Your task to perform on an android device: clear all cookies in the chrome app Image 0: 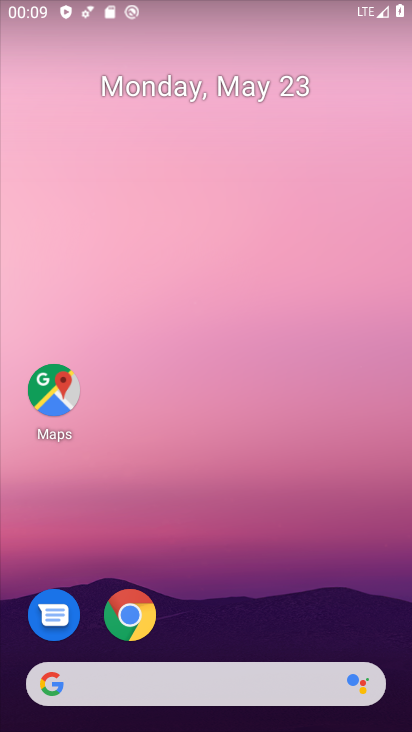
Step 0: click (118, 609)
Your task to perform on an android device: clear all cookies in the chrome app Image 1: 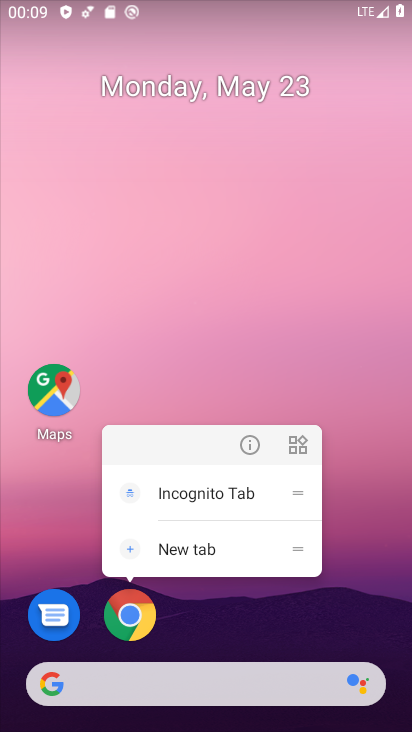
Step 1: click (127, 612)
Your task to perform on an android device: clear all cookies in the chrome app Image 2: 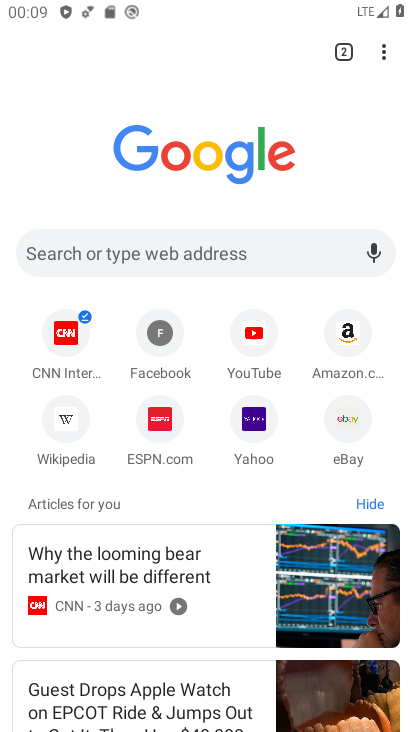
Step 2: drag from (385, 47) to (179, 303)
Your task to perform on an android device: clear all cookies in the chrome app Image 3: 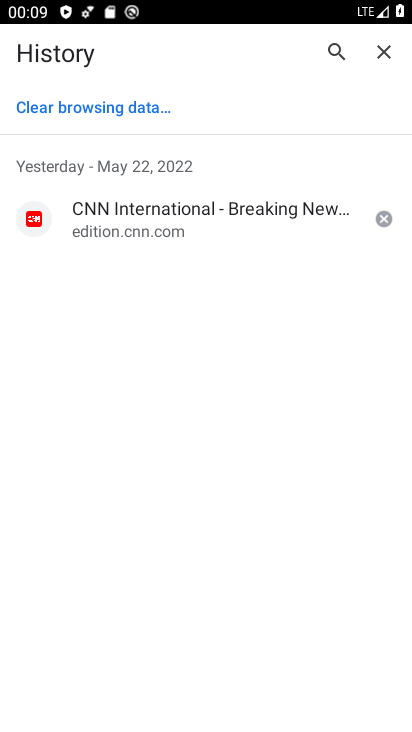
Step 3: click (88, 100)
Your task to perform on an android device: clear all cookies in the chrome app Image 4: 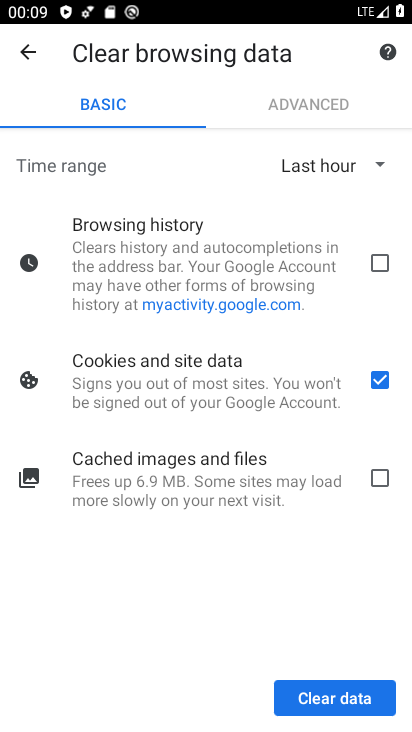
Step 4: click (331, 704)
Your task to perform on an android device: clear all cookies in the chrome app Image 5: 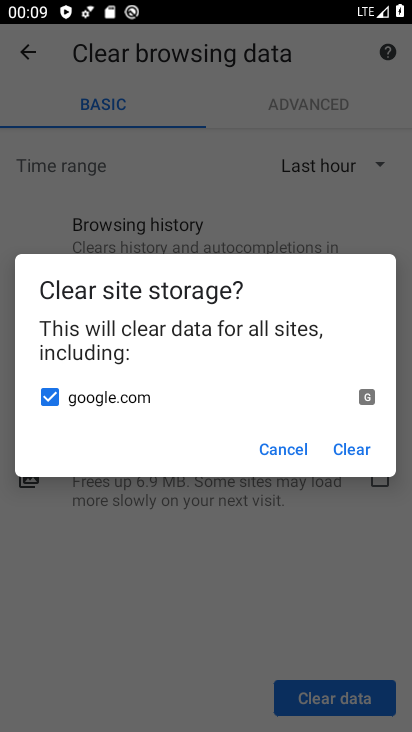
Step 5: click (363, 440)
Your task to perform on an android device: clear all cookies in the chrome app Image 6: 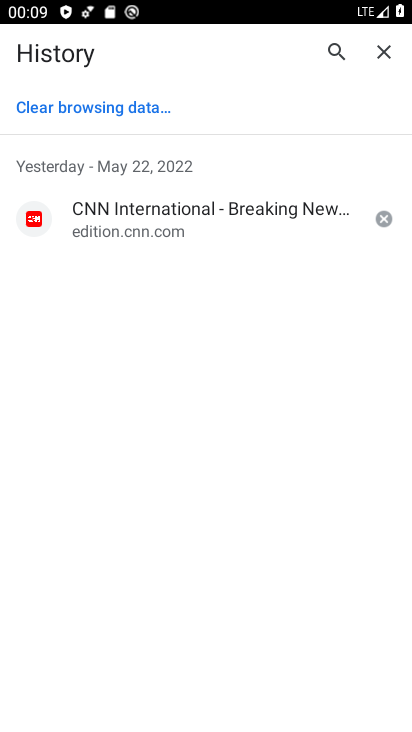
Step 6: task complete